Your task to perform on an android device: search for starred emails in the gmail app Image 0: 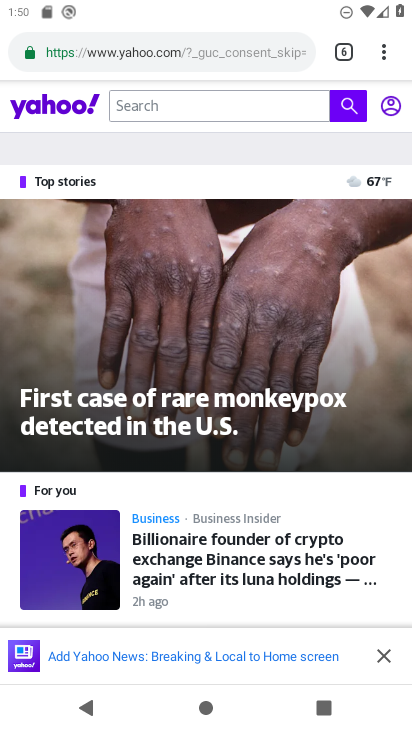
Step 0: press home button
Your task to perform on an android device: search for starred emails in the gmail app Image 1: 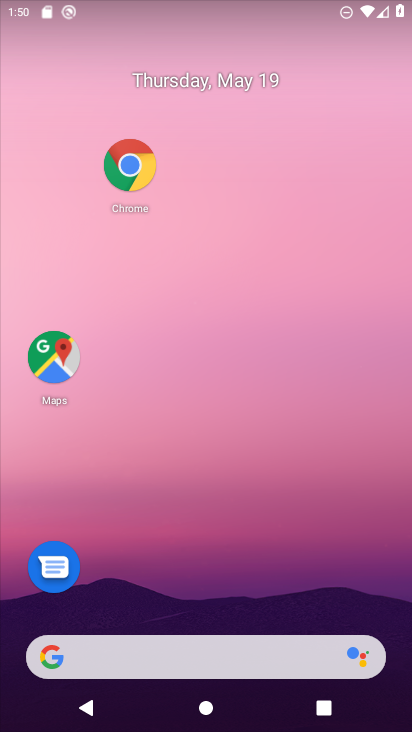
Step 1: drag from (204, 360) to (236, 138)
Your task to perform on an android device: search for starred emails in the gmail app Image 2: 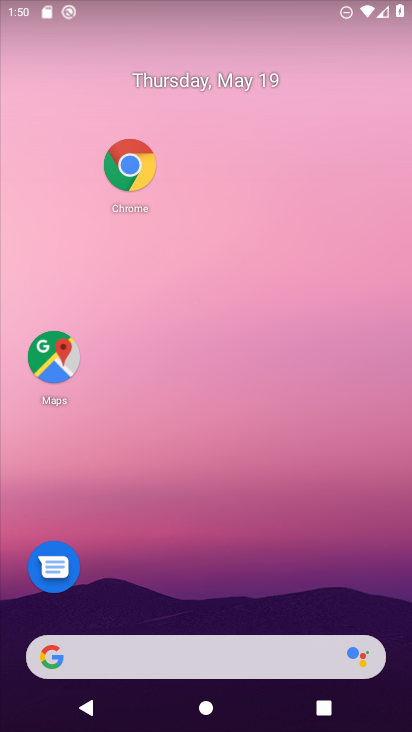
Step 2: drag from (196, 522) to (278, 20)
Your task to perform on an android device: search for starred emails in the gmail app Image 3: 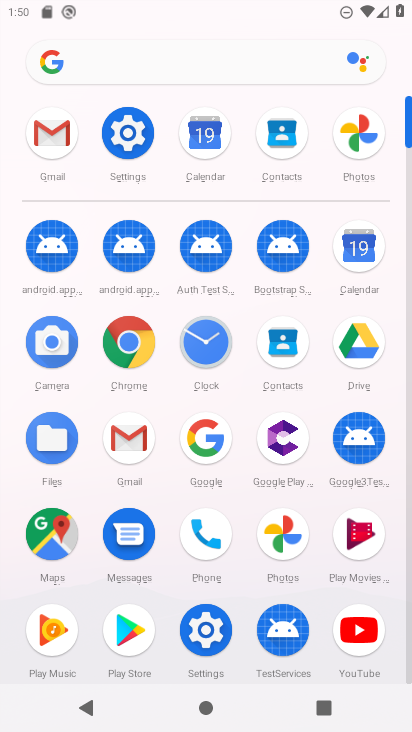
Step 3: click (34, 130)
Your task to perform on an android device: search for starred emails in the gmail app Image 4: 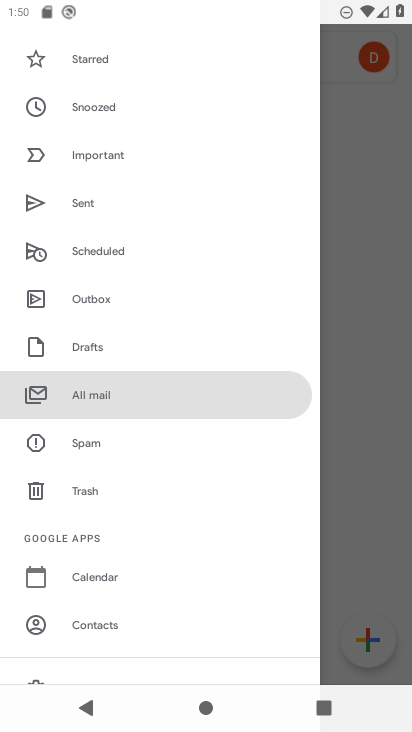
Step 4: click (84, 59)
Your task to perform on an android device: search for starred emails in the gmail app Image 5: 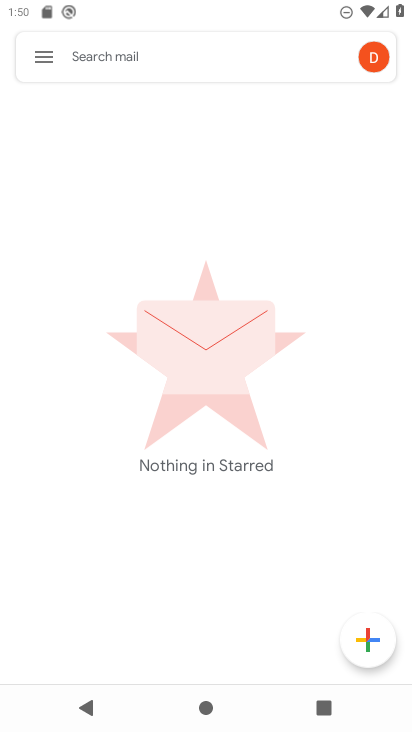
Step 5: task complete